Your task to perform on an android device: check google app version Image 0: 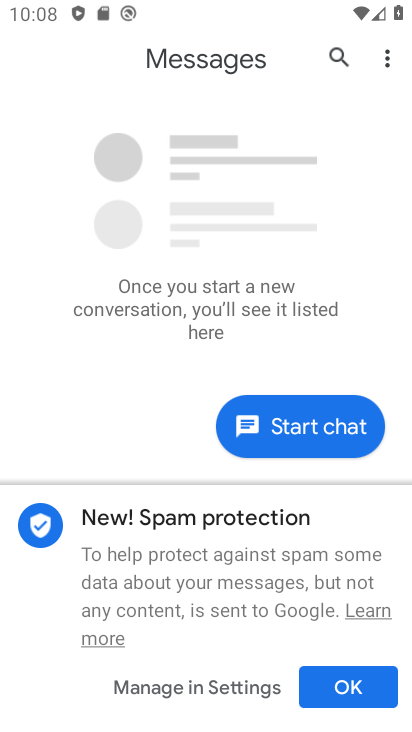
Step 0: press back button
Your task to perform on an android device: check google app version Image 1: 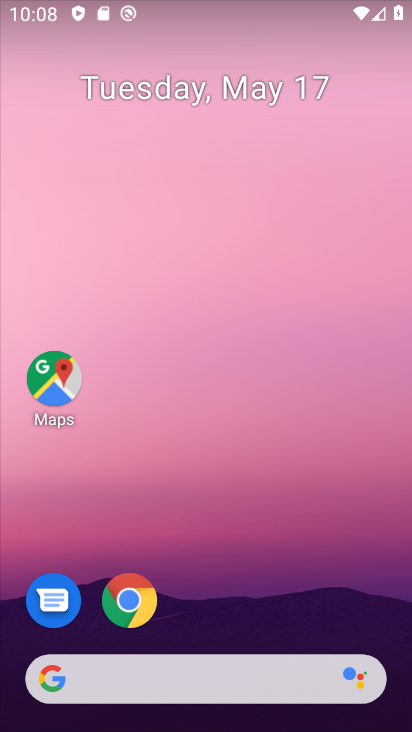
Step 1: drag from (275, 446) to (331, 13)
Your task to perform on an android device: check google app version Image 2: 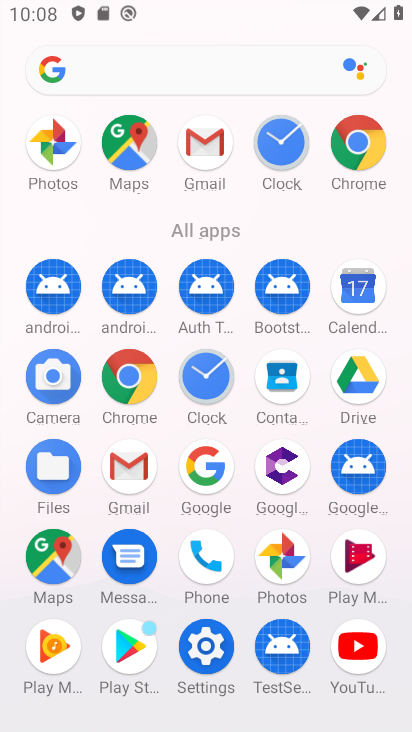
Step 2: click (208, 475)
Your task to perform on an android device: check google app version Image 3: 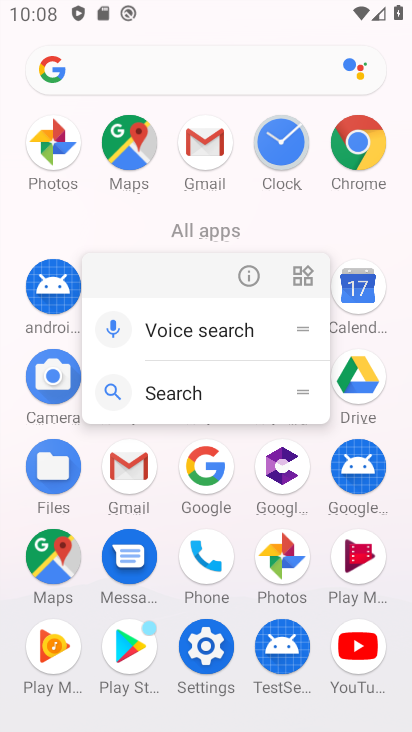
Step 3: click (251, 270)
Your task to perform on an android device: check google app version Image 4: 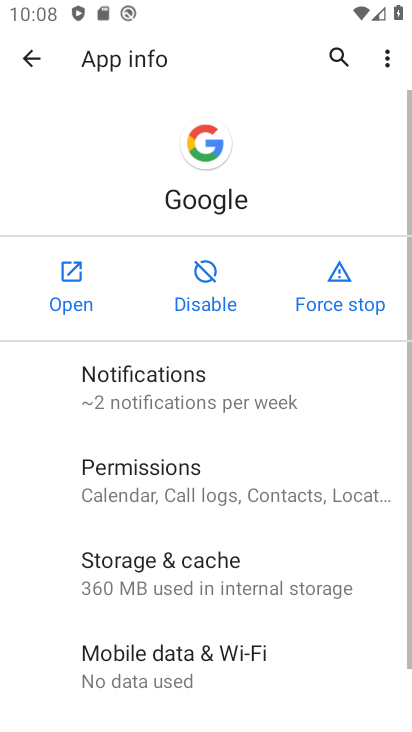
Step 4: drag from (215, 639) to (308, 97)
Your task to perform on an android device: check google app version Image 5: 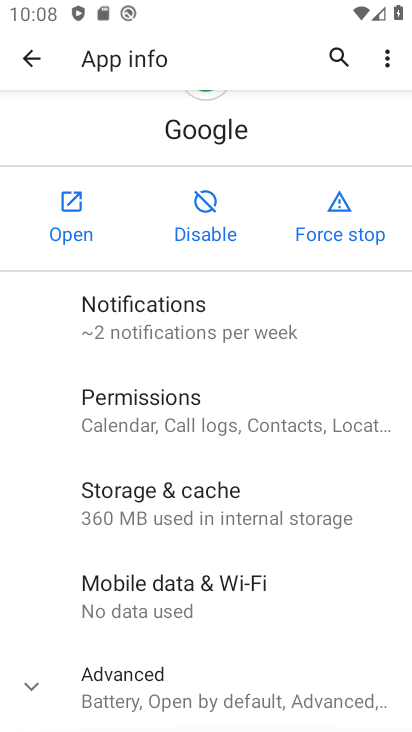
Step 5: drag from (212, 627) to (393, 0)
Your task to perform on an android device: check google app version Image 6: 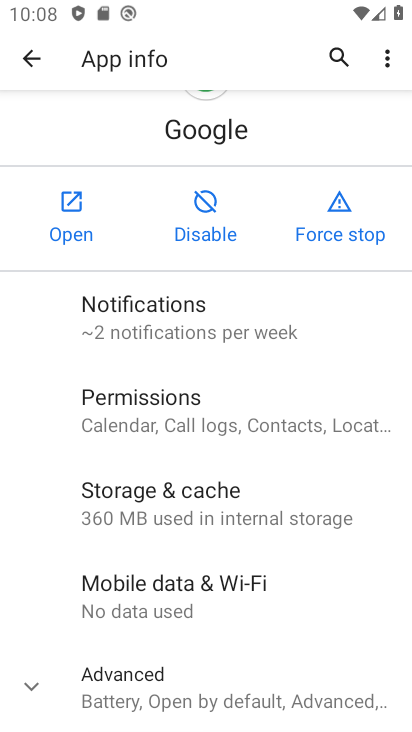
Step 6: click (83, 694)
Your task to perform on an android device: check google app version Image 7: 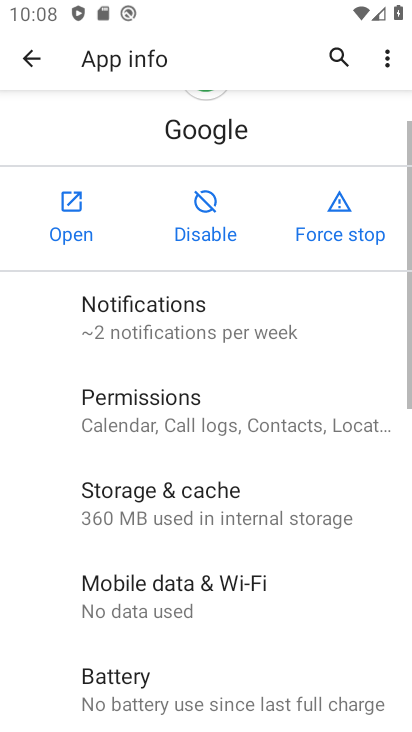
Step 7: task complete